Your task to perform on an android device: find photos in the google photos app Image 0: 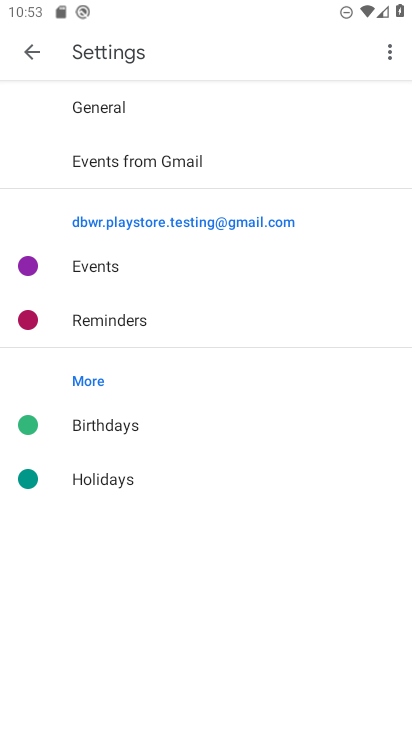
Step 0: drag from (188, 601) to (218, 238)
Your task to perform on an android device: find photos in the google photos app Image 1: 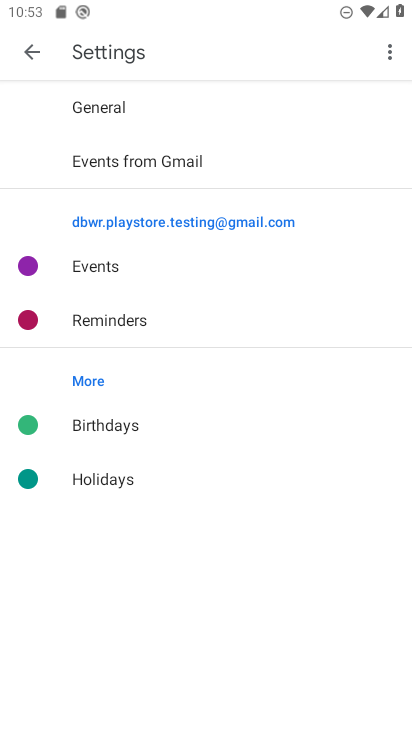
Step 1: click (297, 564)
Your task to perform on an android device: find photos in the google photos app Image 2: 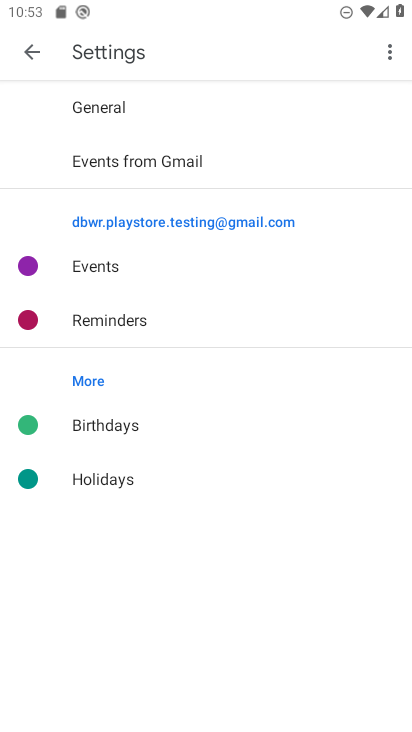
Step 2: press home button
Your task to perform on an android device: find photos in the google photos app Image 3: 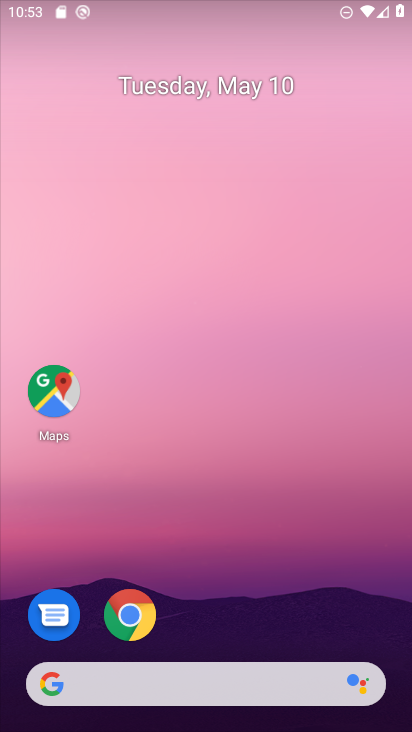
Step 3: drag from (160, 625) to (270, 74)
Your task to perform on an android device: find photos in the google photos app Image 4: 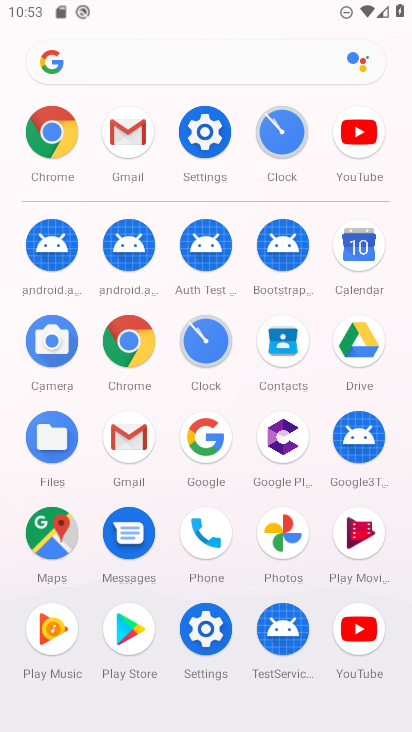
Step 4: click (285, 536)
Your task to perform on an android device: find photos in the google photos app Image 5: 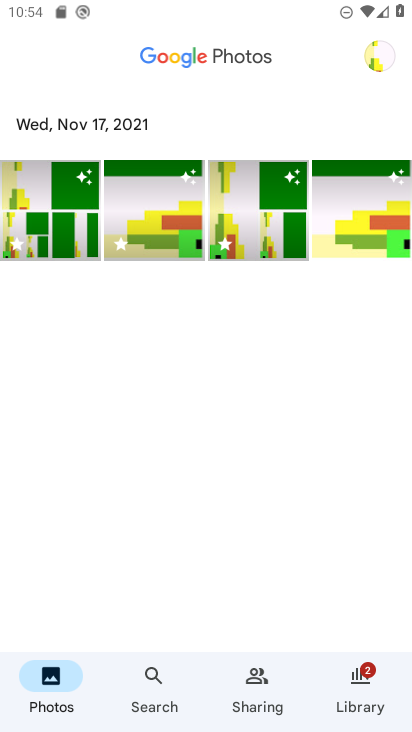
Step 5: click (161, 223)
Your task to perform on an android device: find photos in the google photos app Image 6: 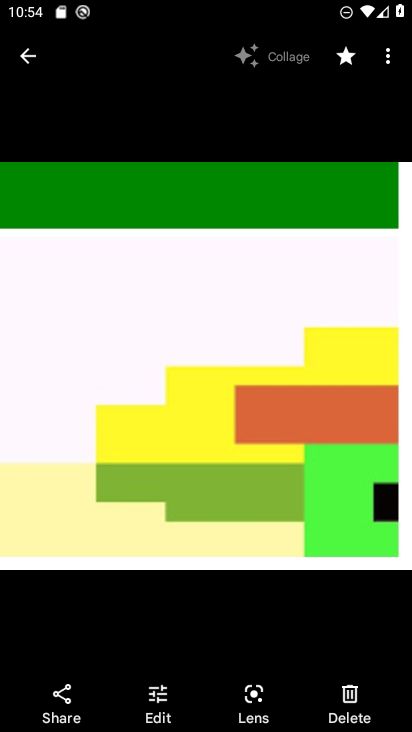
Step 6: task complete